Your task to perform on an android device: open chrome and create a bookmark for the current page Image 0: 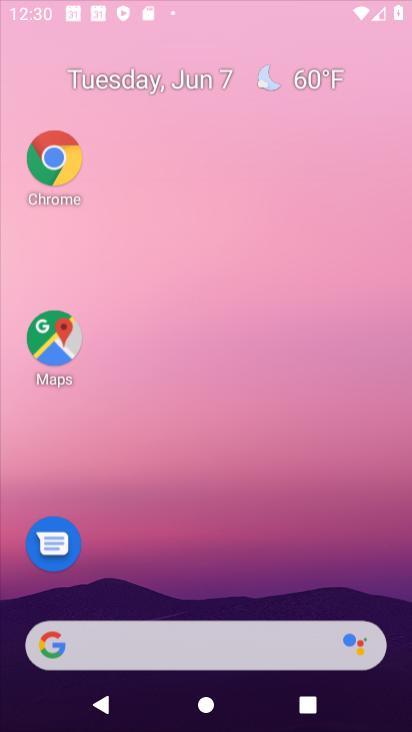
Step 0: click (0, 298)
Your task to perform on an android device: open chrome and create a bookmark for the current page Image 1: 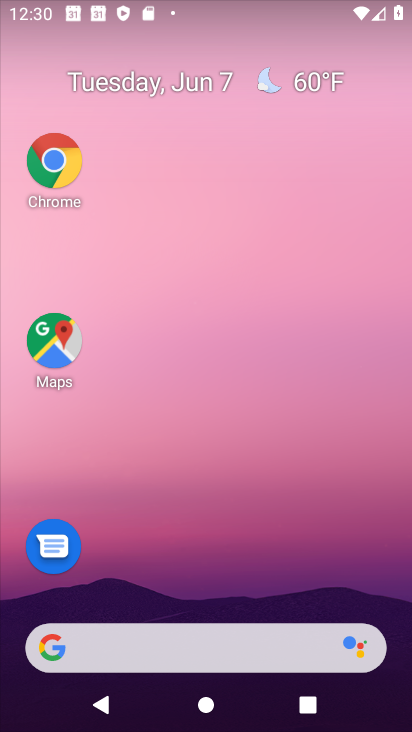
Step 1: drag from (209, 583) to (217, 8)
Your task to perform on an android device: open chrome and create a bookmark for the current page Image 2: 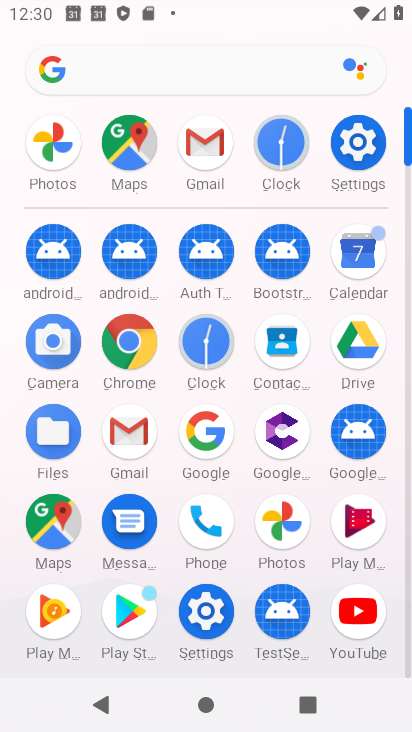
Step 2: click (137, 332)
Your task to perform on an android device: open chrome and create a bookmark for the current page Image 3: 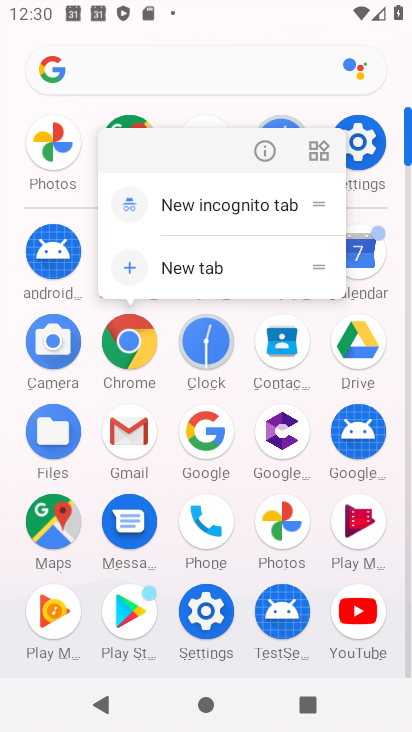
Step 3: click (256, 159)
Your task to perform on an android device: open chrome and create a bookmark for the current page Image 4: 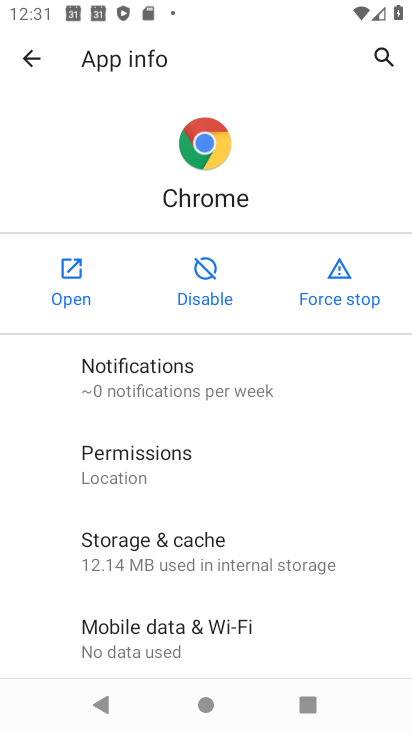
Step 4: click (65, 271)
Your task to perform on an android device: open chrome and create a bookmark for the current page Image 5: 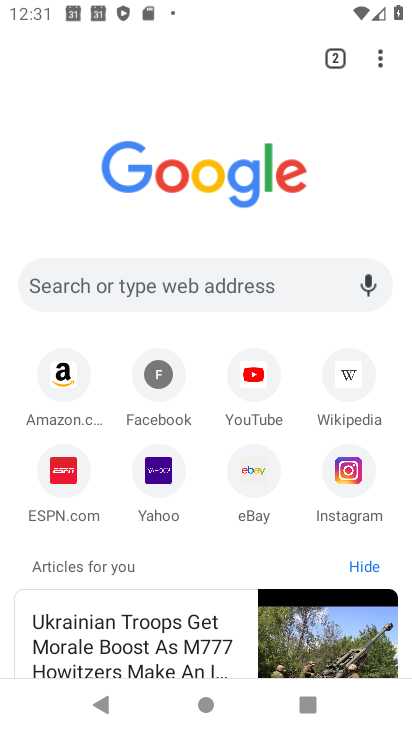
Step 5: task complete